Your task to perform on an android device: turn on location history Image 0: 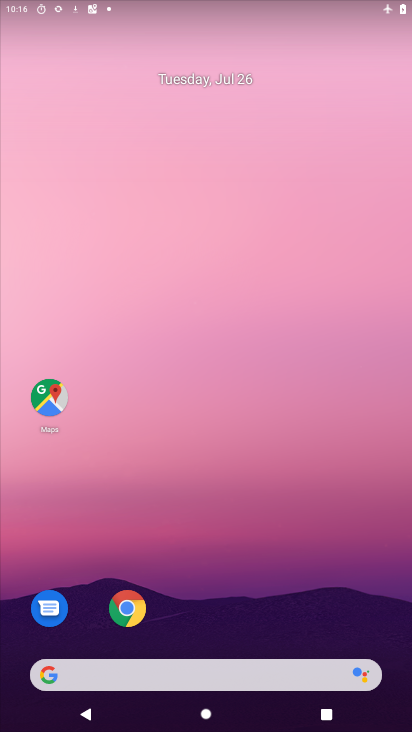
Step 0: drag from (241, 499) to (251, 98)
Your task to perform on an android device: turn on location history Image 1: 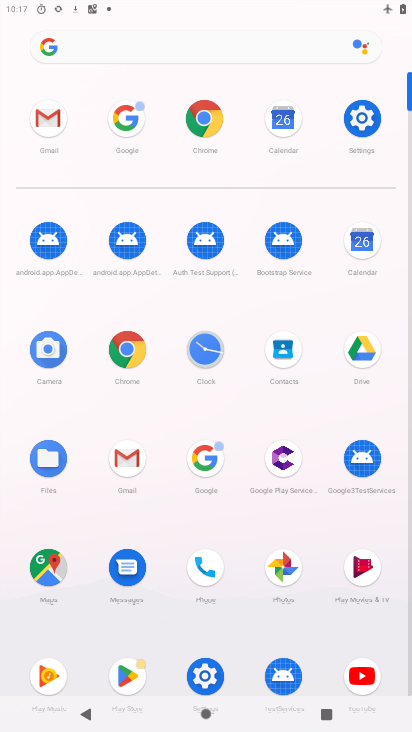
Step 1: click (362, 127)
Your task to perform on an android device: turn on location history Image 2: 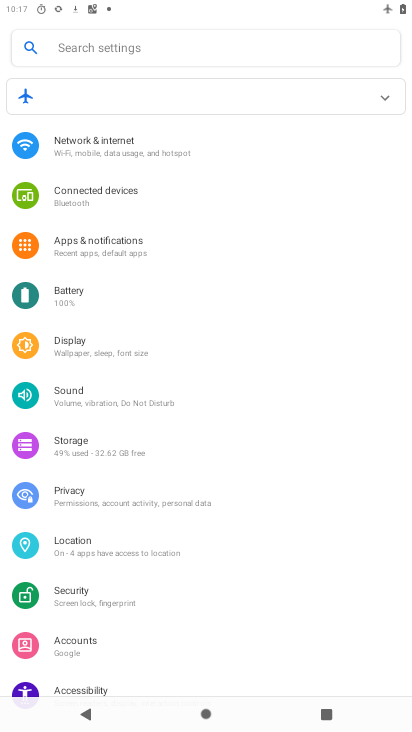
Step 2: click (83, 556)
Your task to perform on an android device: turn on location history Image 3: 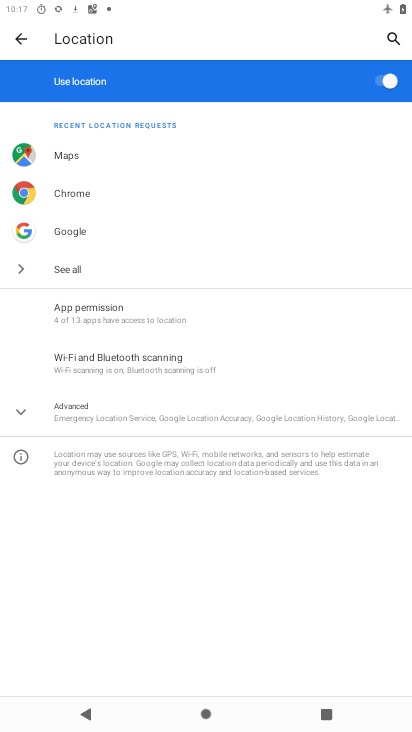
Step 3: click (131, 418)
Your task to perform on an android device: turn on location history Image 4: 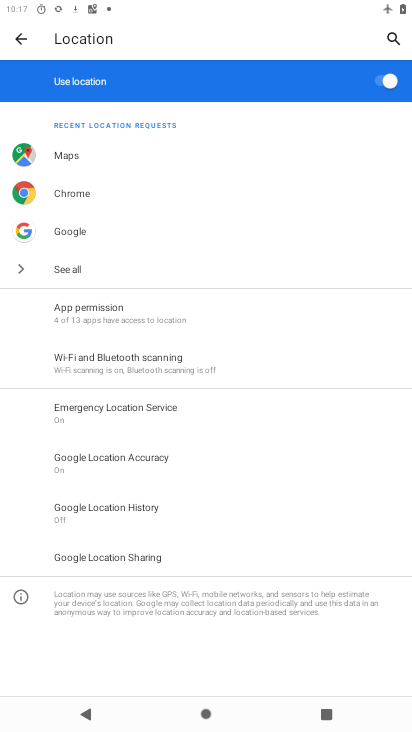
Step 4: click (149, 503)
Your task to perform on an android device: turn on location history Image 5: 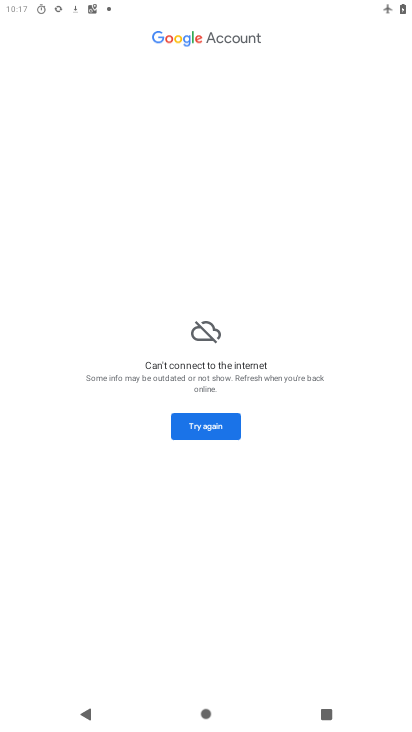
Step 5: task complete